Your task to perform on an android device: Open Youtube and go to the subscriptions tab Image 0: 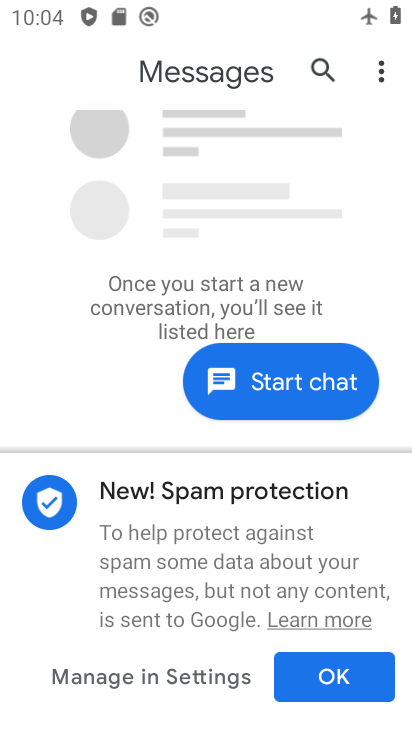
Step 0: press home button
Your task to perform on an android device: Open Youtube and go to the subscriptions tab Image 1: 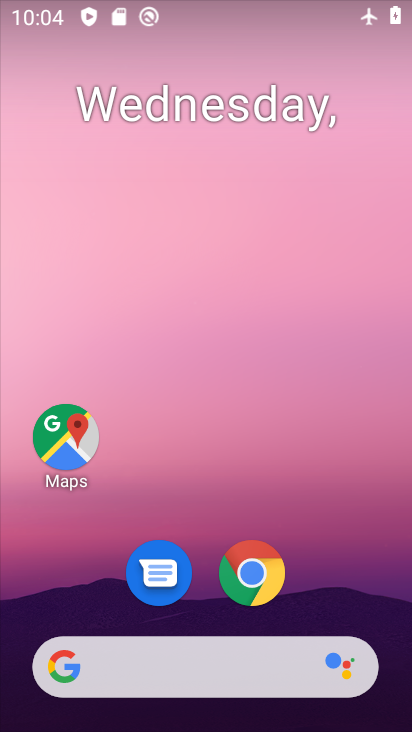
Step 1: drag from (362, 589) to (357, 184)
Your task to perform on an android device: Open Youtube and go to the subscriptions tab Image 2: 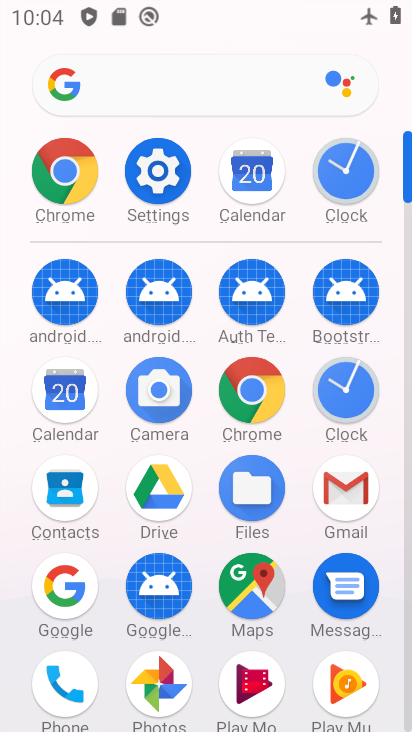
Step 2: drag from (296, 685) to (296, 275)
Your task to perform on an android device: Open Youtube and go to the subscriptions tab Image 3: 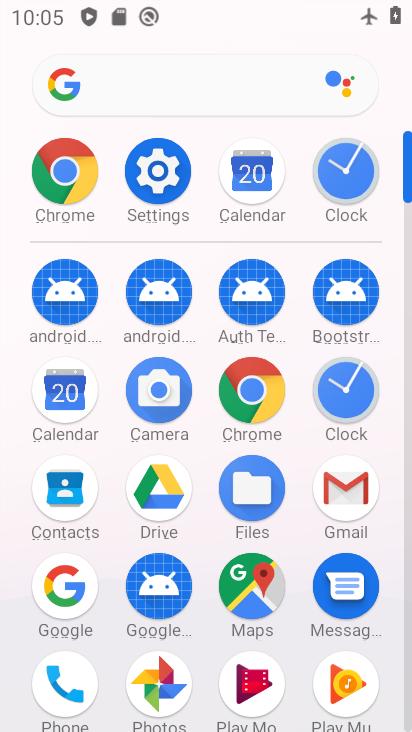
Step 3: drag from (406, 185) to (406, 59)
Your task to perform on an android device: Open Youtube and go to the subscriptions tab Image 4: 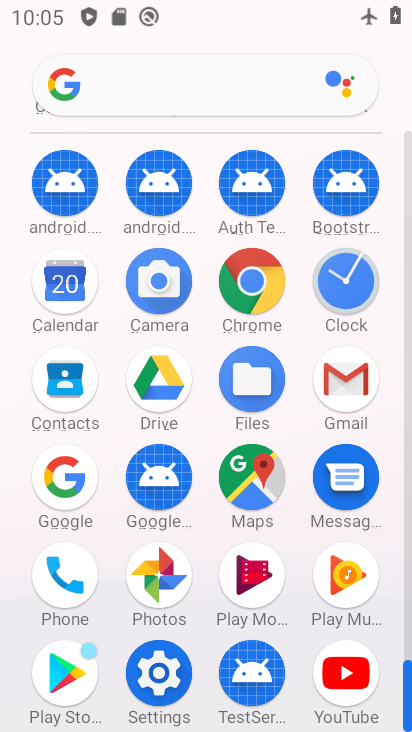
Step 4: click (338, 681)
Your task to perform on an android device: Open Youtube and go to the subscriptions tab Image 5: 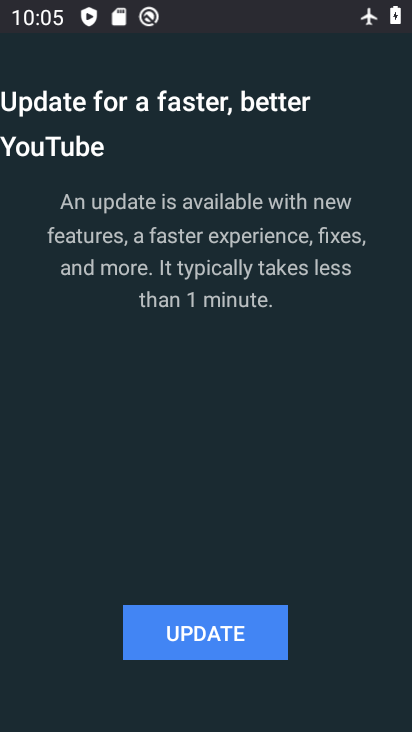
Step 5: click (219, 639)
Your task to perform on an android device: Open Youtube and go to the subscriptions tab Image 6: 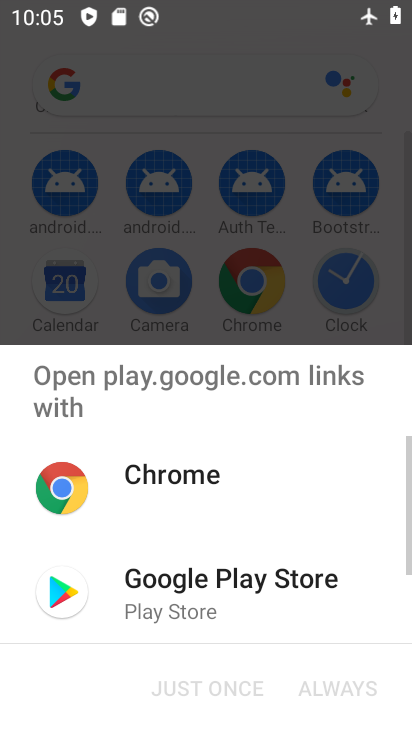
Step 6: click (161, 584)
Your task to perform on an android device: Open Youtube and go to the subscriptions tab Image 7: 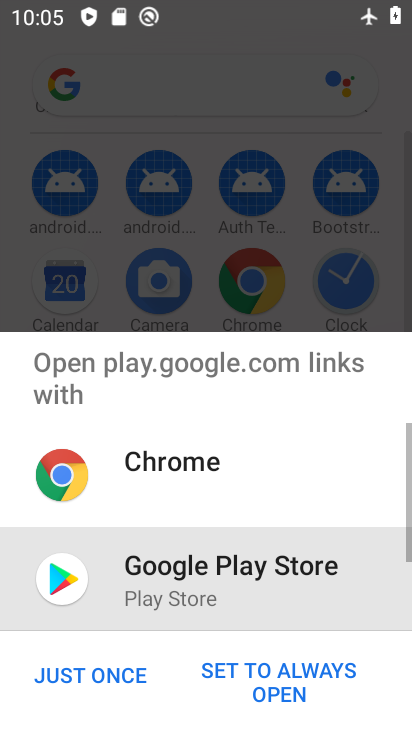
Step 7: click (114, 677)
Your task to perform on an android device: Open Youtube and go to the subscriptions tab Image 8: 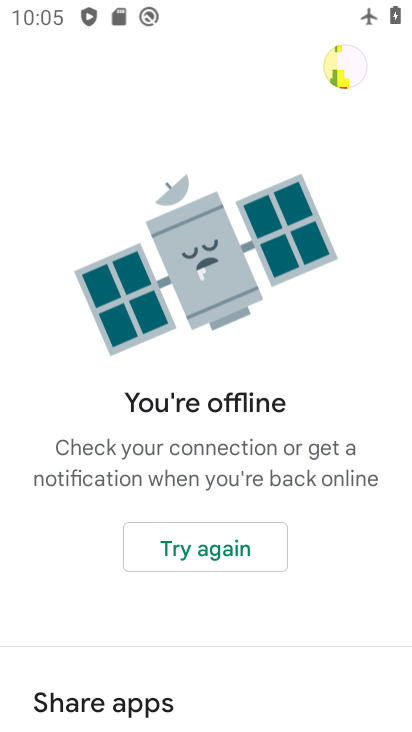
Step 8: task complete